Your task to perform on an android device: Add "razer kraken" to the cart on amazon.com, then select checkout. Image 0: 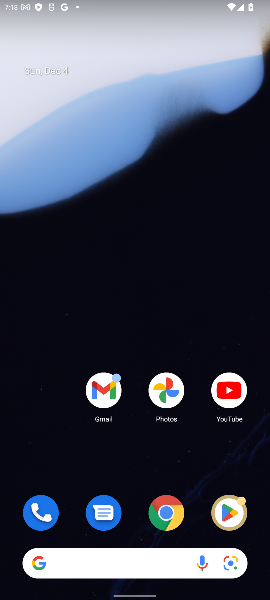
Step 0: click (168, 526)
Your task to perform on an android device: Add "razer kraken" to the cart on amazon.com, then select checkout. Image 1: 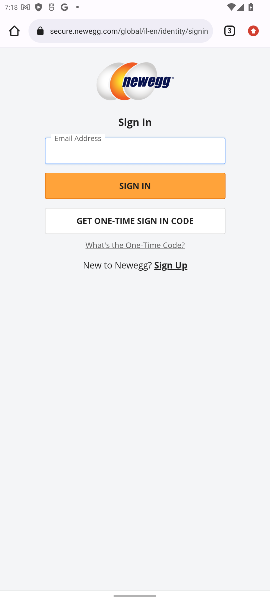
Step 1: click (228, 27)
Your task to perform on an android device: Add "razer kraken" to the cart on amazon.com, then select checkout. Image 2: 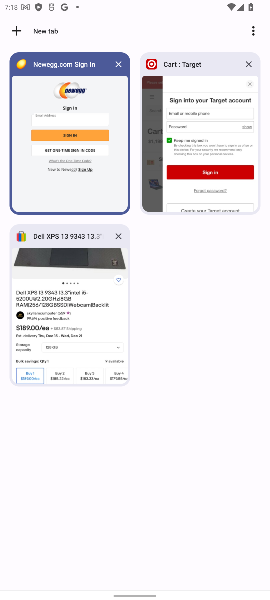
Step 2: click (14, 33)
Your task to perform on an android device: Add "razer kraken" to the cart on amazon.com, then select checkout. Image 3: 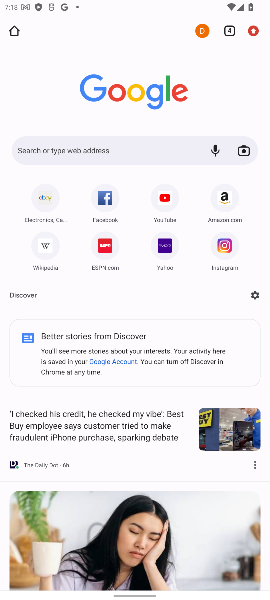
Step 3: click (223, 200)
Your task to perform on an android device: Add "razer kraken" to the cart on amazon.com, then select checkout. Image 4: 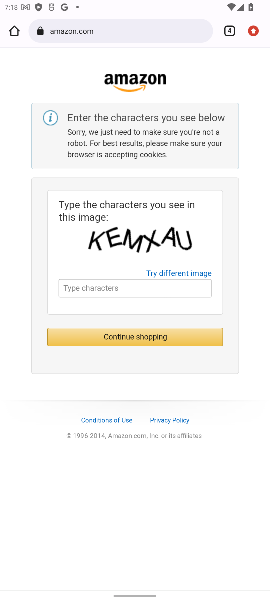
Step 4: click (117, 287)
Your task to perform on an android device: Add "razer kraken" to the cart on amazon.com, then select checkout. Image 5: 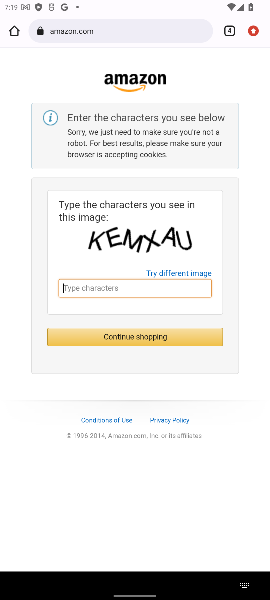
Step 5: type "KEMXAU"
Your task to perform on an android device: Add "razer kraken" to the cart on amazon.com, then select checkout. Image 6: 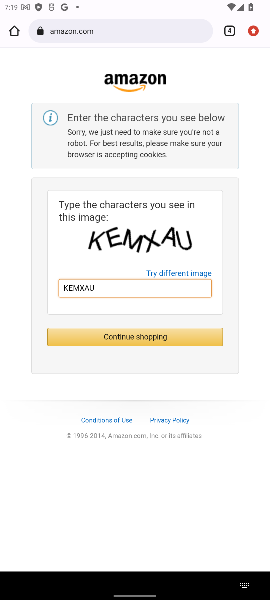
Step 6: click (119, 340)
Your task to perform on an android device: Add "razer kraken" to the cart on amazon.com, then select checkout. Image 7: 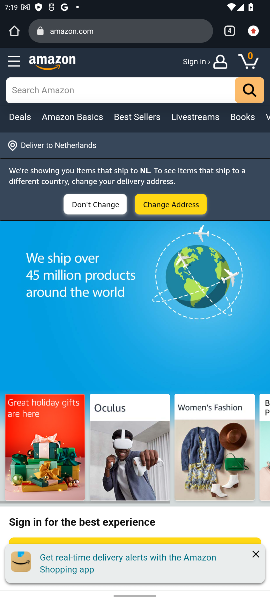
Step 7: click (75, 89)
Your task to perform on an android device: Add "razer kraken" to the cart on amazon.com, then select checkout. Image 8: 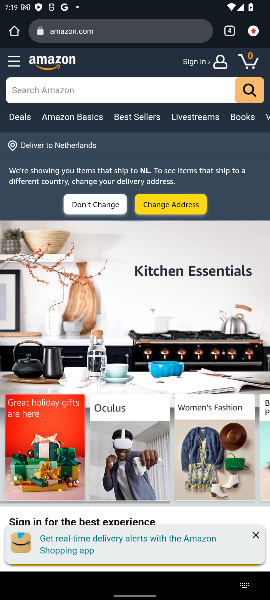
Step 8: type "razer kraken"
Your task to perform on an android device: Add "razer kraken" to the cart on amazon.com, then select checkout. Image 9: 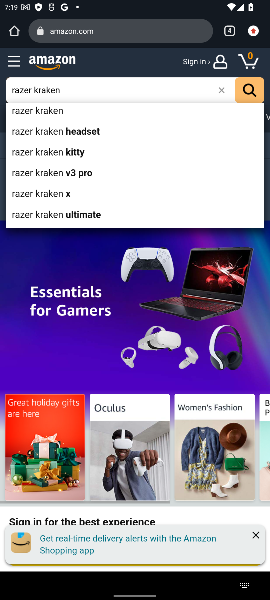
Step 9: click (53, 108)
Your task to perform on an android device: Add "razer kraken" to the cart on amazon.com, then select checkout. Image 10: 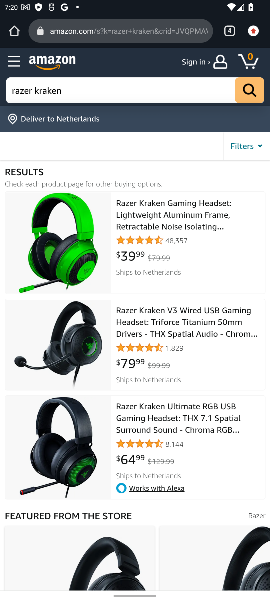
Step 10: click (163, 219)
Your task to perform on an android device: Add "razer kraken" to the cart on amazon.com, then select checkout. Image 11: 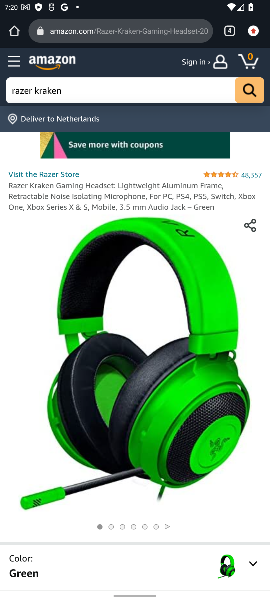
Step 11: drag from (153, 456) to (255, 37)
Your task to perform on an android device: Add "razer kraken" to the cart on amazon.com, then select checkout. Image 12: 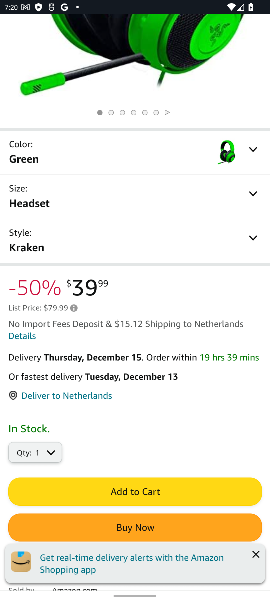
Step 12: click (135, 492)
Your task to perform on an android device: Add "razer kraken" to the cart on amazon.com, then select checkout. Image 13: 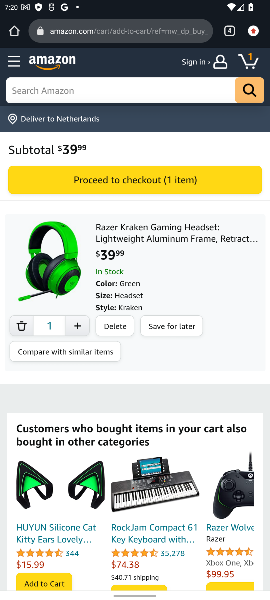
Step 13: click (165, 172)
Your task to perform on an android device: Add "razer kraken" to the cart on amazon.com, then select checkout. Image 14: 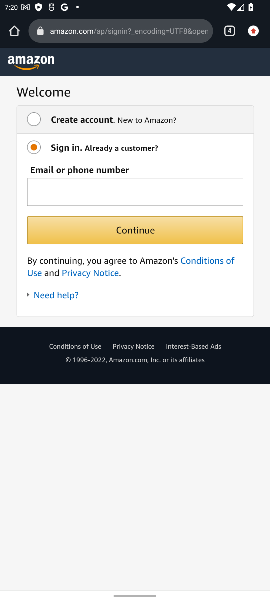
Step 14: task complete